Your task to perform on an android device: open sync settings in chrome Image 0: 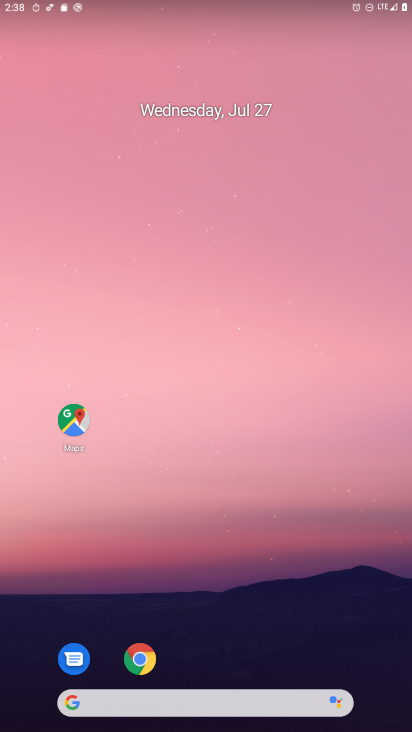
Step 0: drag from (230, 146) to (242, 75)
Your task to perform on an android device: open sync settings in chrome Image 1: 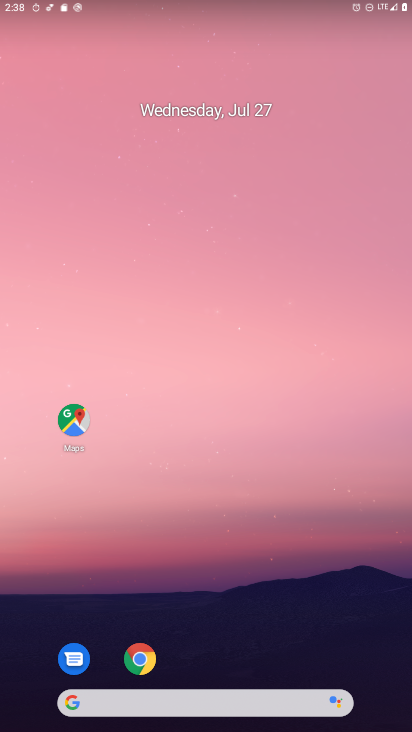
Step 1: drag from (324, 534) to (327, 41)
Your task to perform on an android device: open sync settings in chrome Image 2: 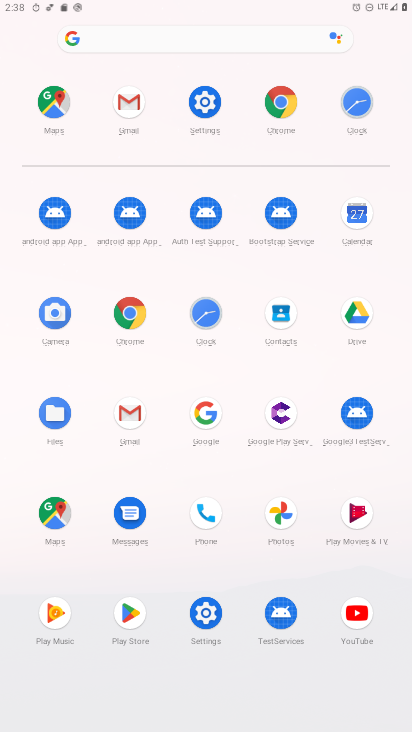
Step 2: click (124, 311)
Your task to perform on an android device: open sync settings in chrome Image 3: 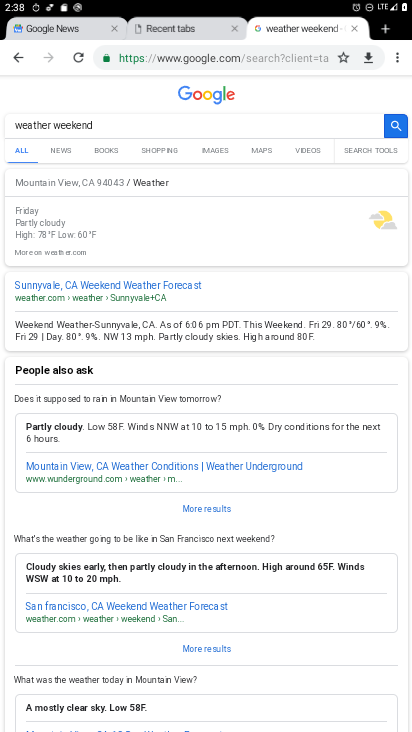
Step 3: drag from (398, 52) to (285, 348)
Your task to perform on an android device: open sync settings in chrome Image 4: 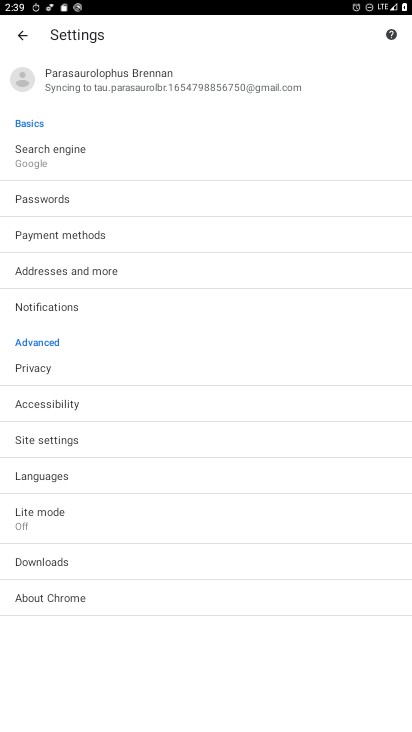
Step 4: click (135, 80)
Your task to perform on an android device: open sync settings in chrome Image 5: 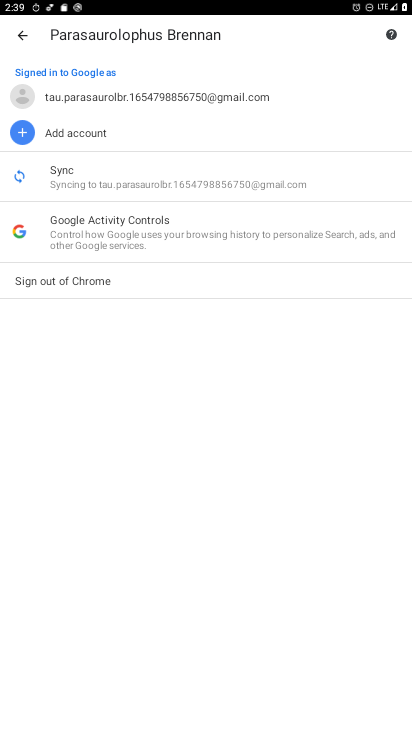
Step 5: click (134, 184)
Your task to perform on an android device: open sync settings in chrome Image 6: 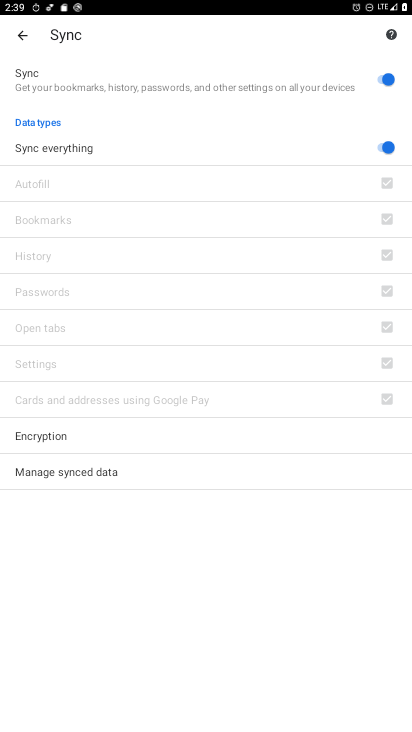
Step 6: task complete